Your task to perform on an android device: Open the phone app and click the voicemail tab. Image 0: 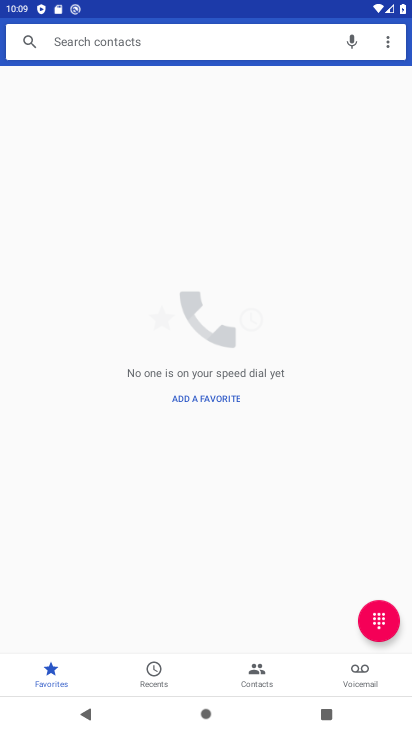
Step 0: press home button
Your task to perform on an android device: Open the phone app and click the voicemail tab. Image 1: 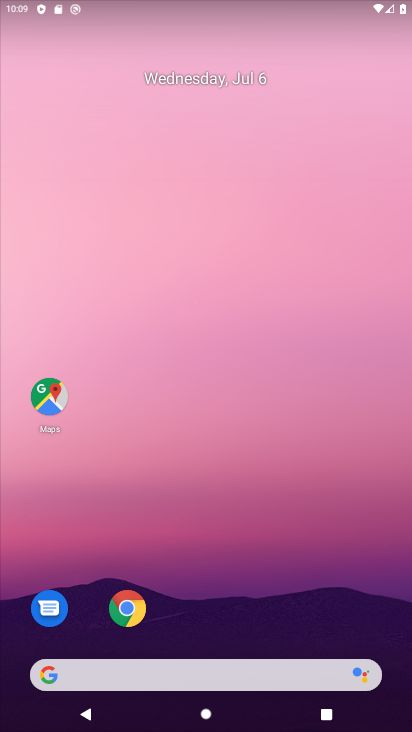
Step 1: drag from (194, 642) to (152, 86)
Your task to perform on an android device: Open the phone app and click the voicemail tab. Image 2: 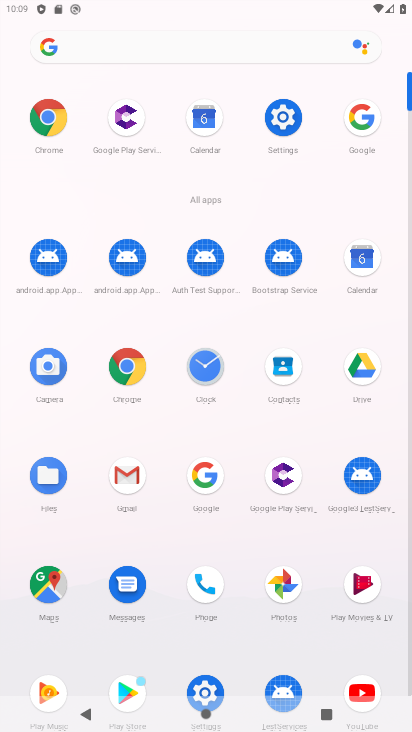
Step 2: click (204, 572)
Your task to perform on an android device: Open the phone app and click the voicemail tab. Image 3: 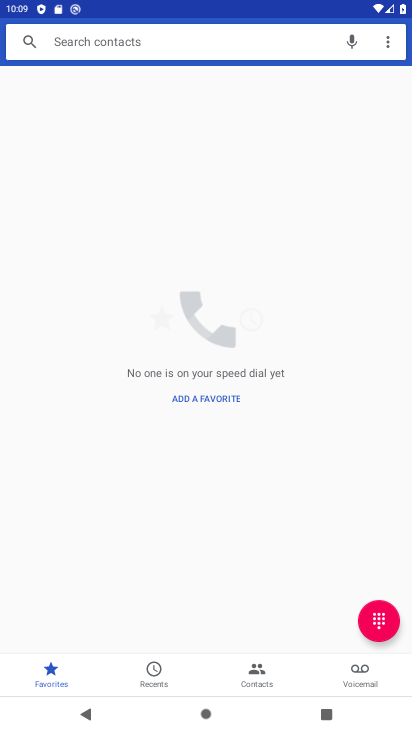
Step 3: click (158, 667)
Your task to perform on an android device: Open the phone app and click the voicemail tab. Image 4: 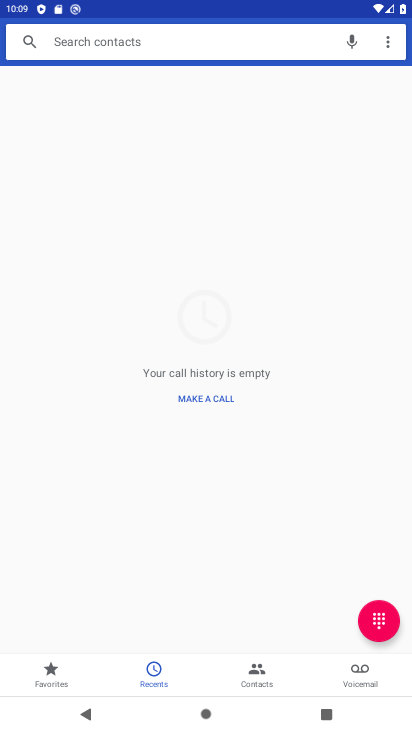
Step 4: click (359, 682)
Your task to perform on an android device: Open the phone app and click the voicemail tab. Image 5: 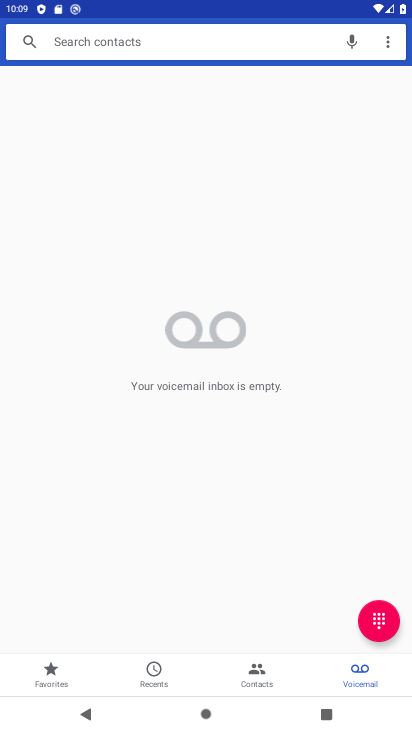
Step 5: task complete